Your task to perform on an android device: check android version Image 0: 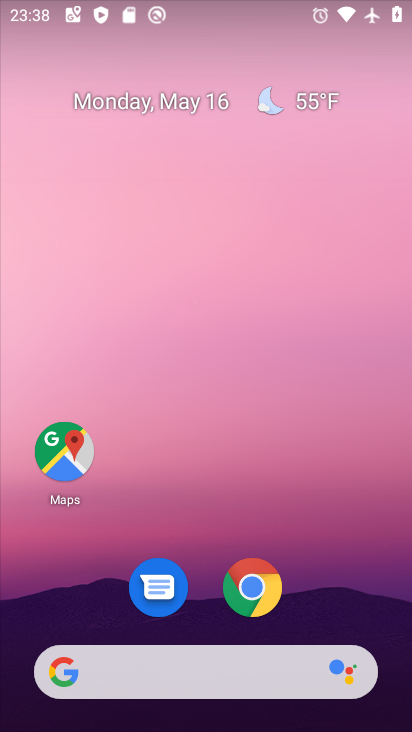
Step 0: drag from (283, 514) to (154, 0)
Your task to perform on an android device: check android version Image 1: 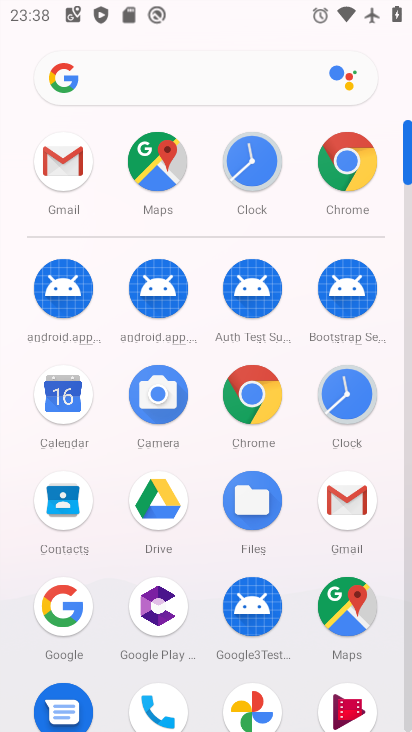
Step 1: drag from (15, 615) to (7, 273)
Your task to perform on an android device: check android version Image 2: 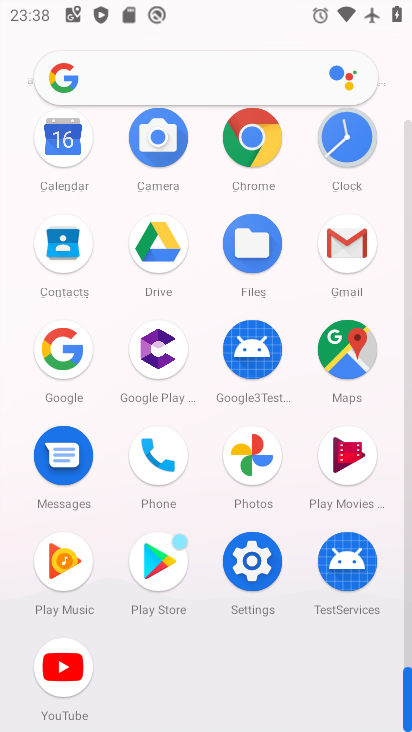
Step 2: click (253, 558)
Your task to perform on an android device: check android version Image 3: 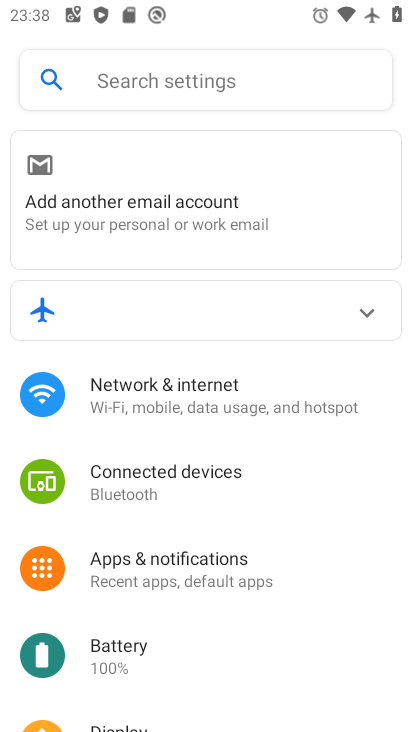
Step 3: drag from (252, 556) to (262, 167)
Your task to perform on an android device: check android version Image 4: 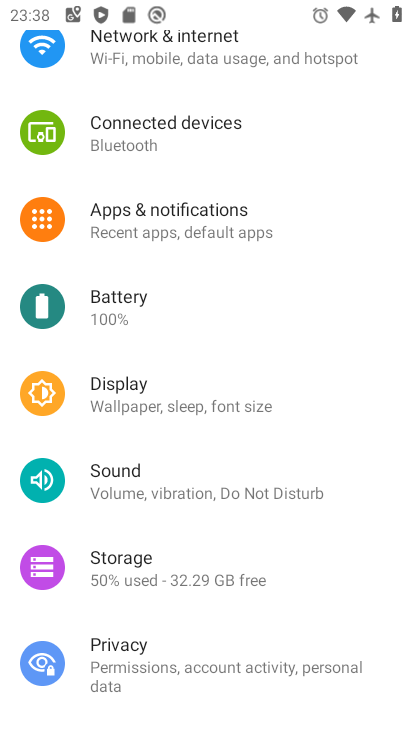
Step 4: drag from (274, 552) to (266, 146)
Your task to perform on an android device: check android version Image 5: 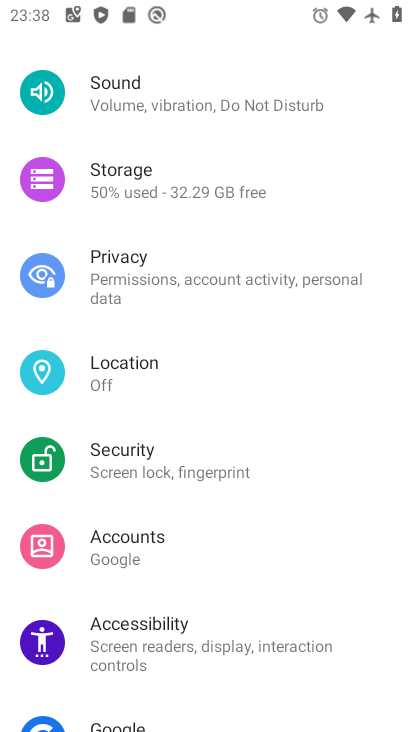
Step 5: drag from (239, 545) to (239, 161)
Your task to perform on an android device: check android version Image 6: 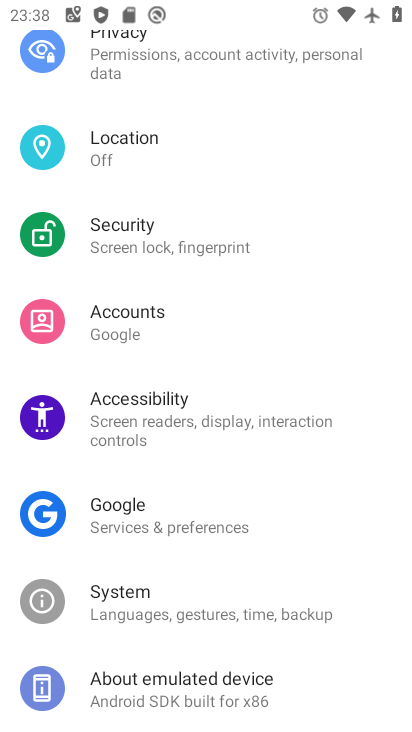
Step 6: click (197, 682)
Your task to perform on an android device: check android version Image 7: 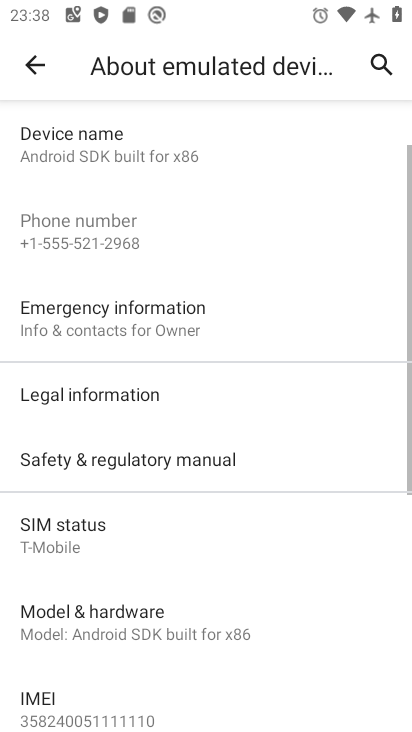
Step 7: task complete